Your task to perform on an android device: Show me popular videos on Youtube Image 0: 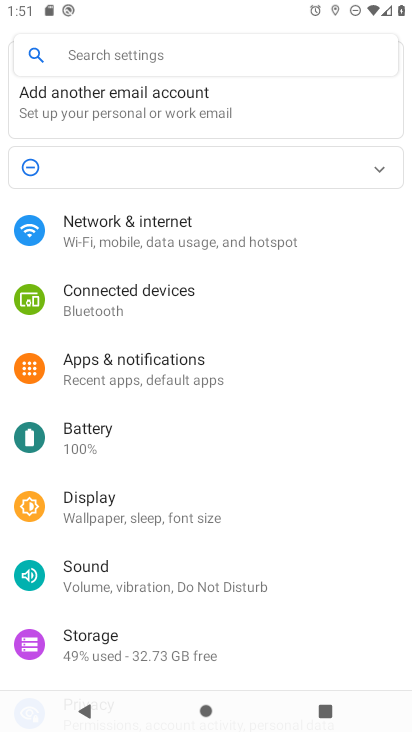
Step 0: press home button
Your task to perform on an android device: Show me popular videos on Youtube Image 1: 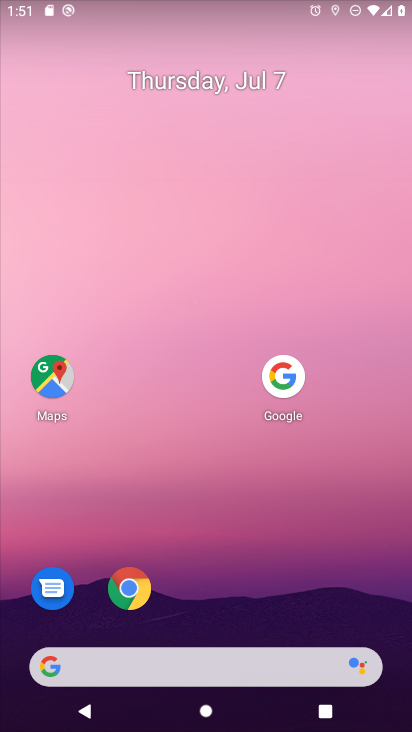
Step 1: drag from (209, 671) to (299, 45)
Your task to perform on an android device: Show me popular videos on Youtube Image 2: 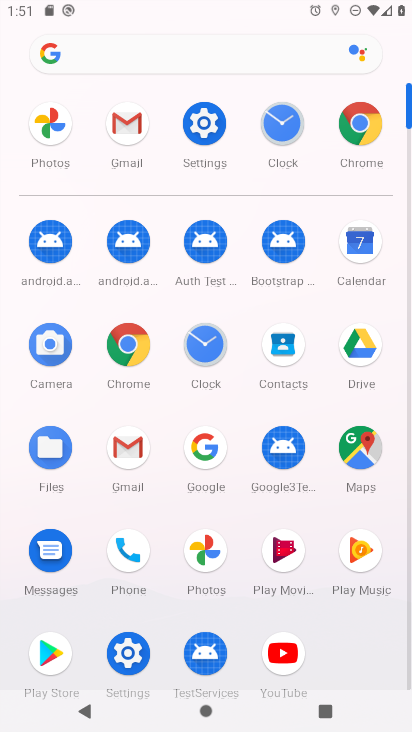
Step 2: click (285, 651)
Your task to perform on an android device: Show me popular videos on Youtube Image 3: 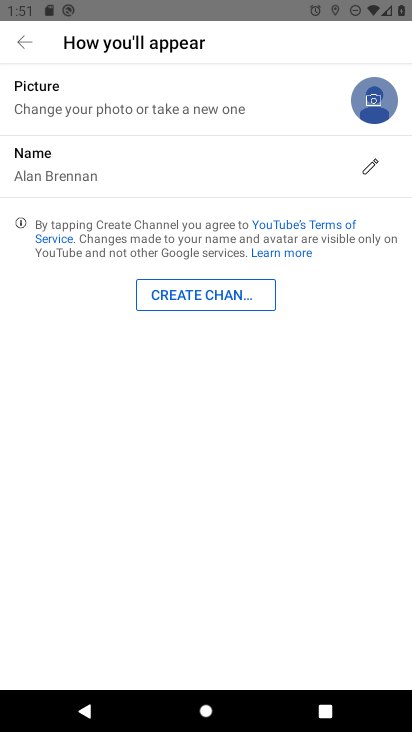
Step 3: click (26, 38)
Your task to perform on an android device: Show me popular videos on Youtube Image 4: 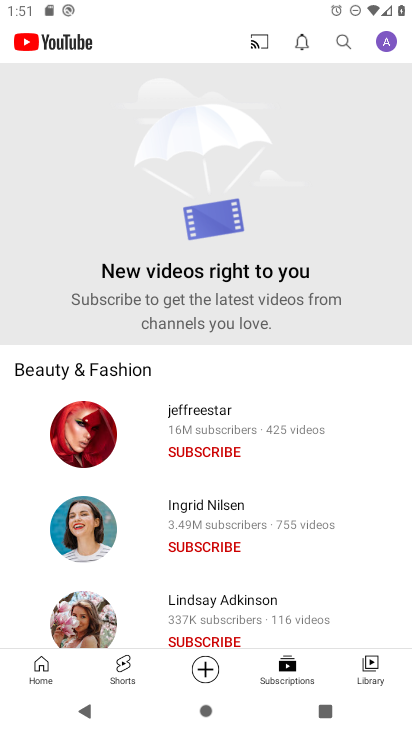
Step 4: click (37, 683)
Your task to perform on an android device: Show me popular videos on Youtube Image 5: 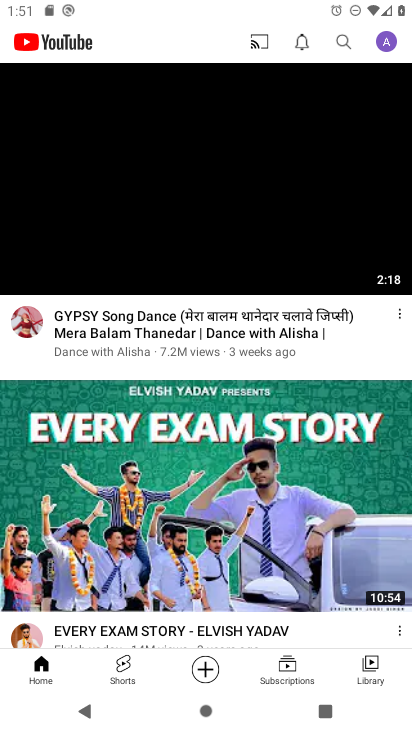
Step 5: task complete